Your task to perform on an android device: What's the weather? Image 0: 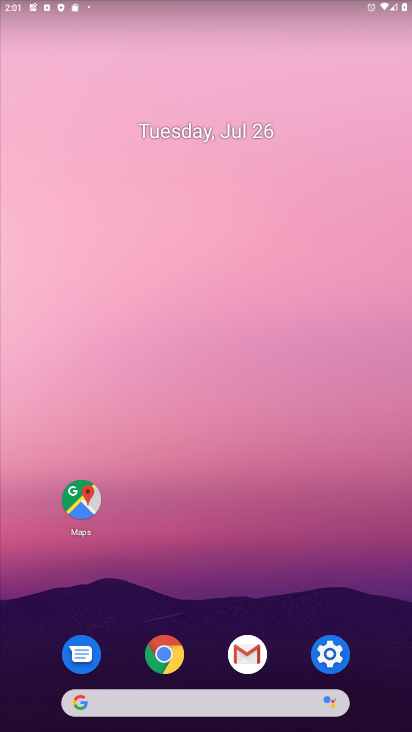
Step 0: click (184, 704)
Your task to perform on an android device: What's the weather? Image 1: 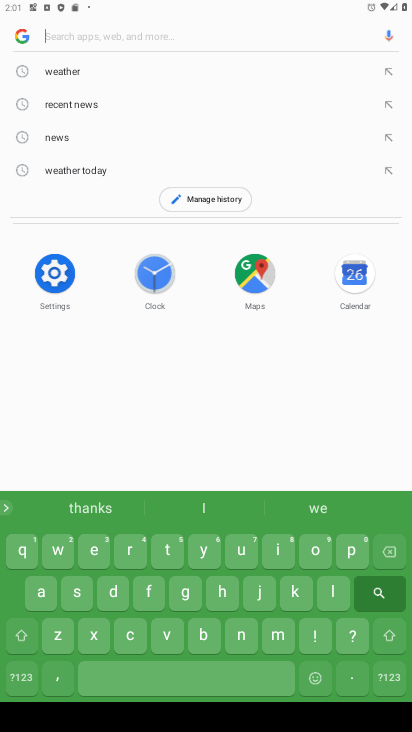
Step 1: click (70, 75)
Your task to perform on an android device: What's the weather? Image 2: 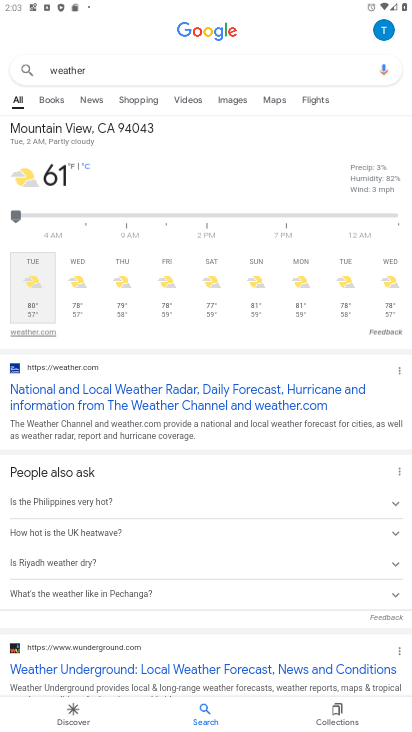
Step 2: task complete